Your task to perform on an android device: turn off sleep mode Image 0: 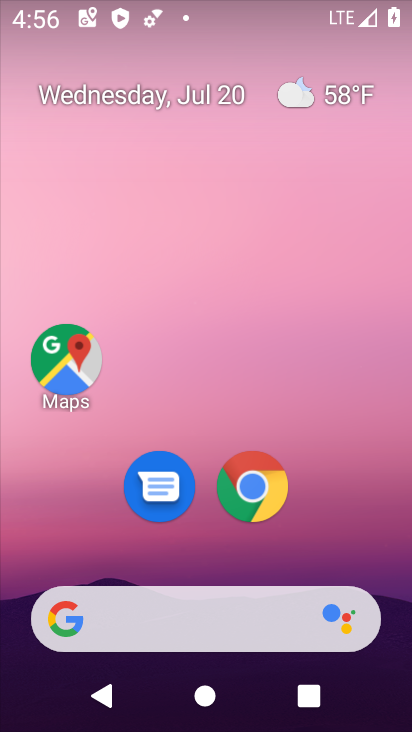
Step 0: drag from (215, 538) to (244, 4)
Your task to perform on an android device: turn off sleep mode Image 1: 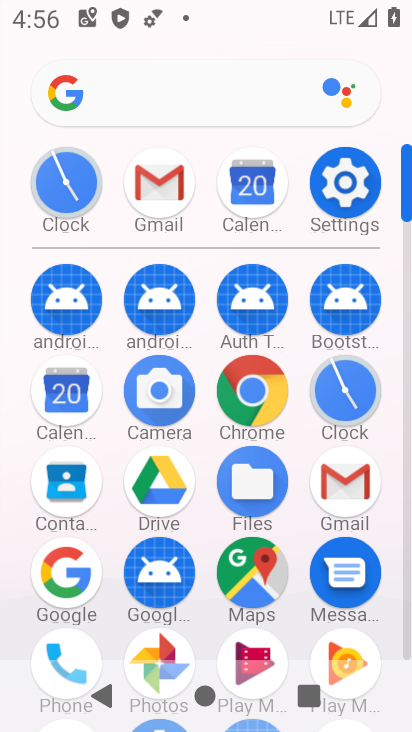
Step 1: click (352, 175)
Your task to perform on an android device: turn off sleep mode Image 2: 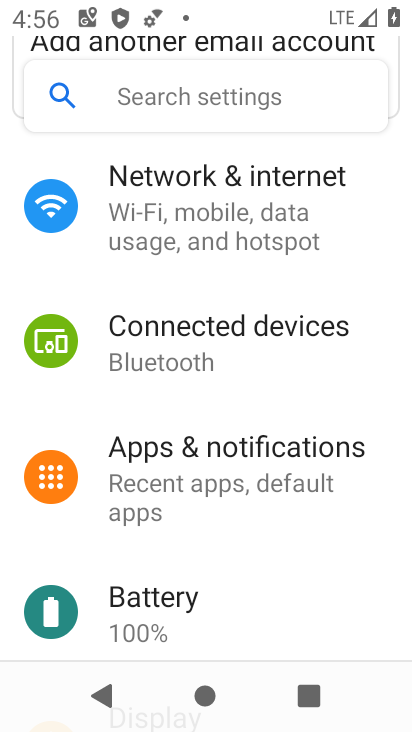
Step 2: click (140, 91)
Your task to perform on an android device: turn off sleep mode Image 3: 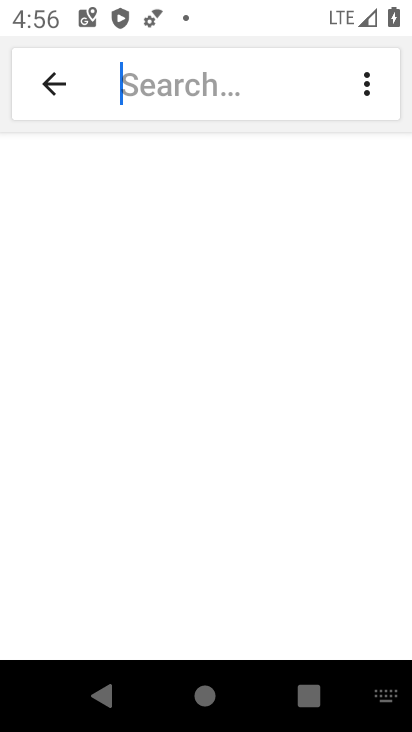
Step 3: type "sleep  mode"
Your task to perform on an android device: turn off sleep mode Image 4: 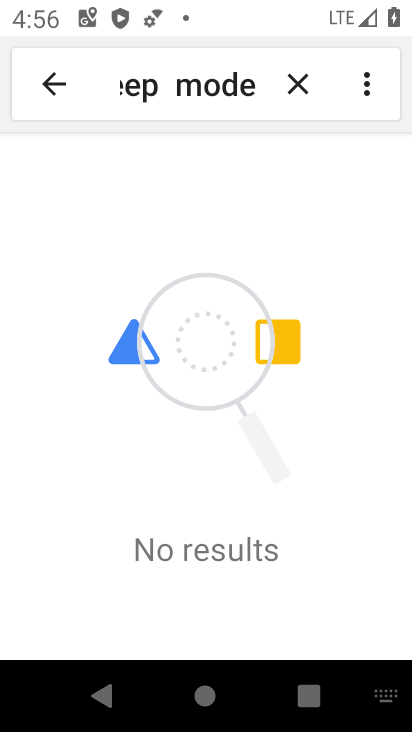
Step 4: task complete